Your task to perform on an android device: turn notification dots off Image 0: 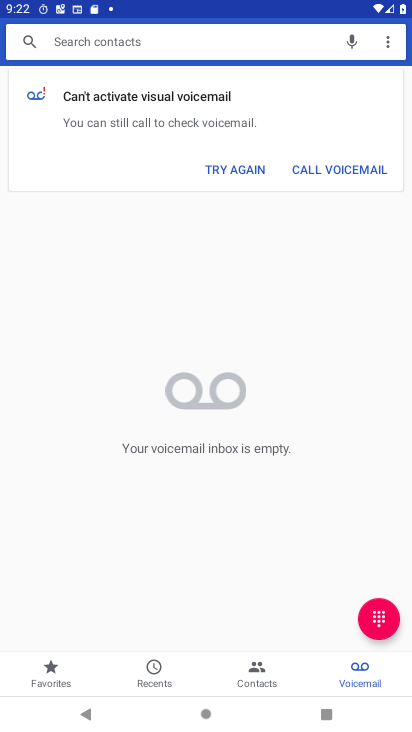
Step 0: press home button
Your task to perform on an android device: turn notification dots off Image 1: 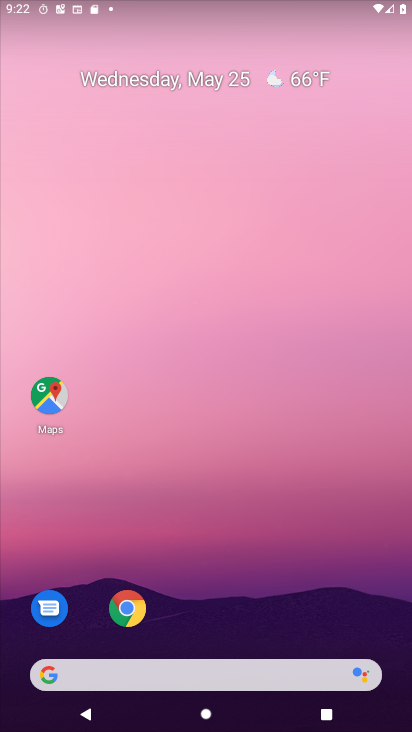
Step 1: drag from (235, 659) to (235, 245)
Your task to perform on an android device: turn notification dots off Image 2: 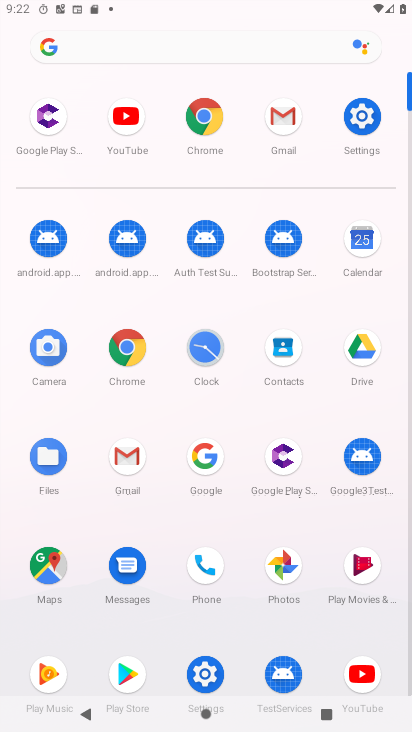
Step 2: click (367, 108)
Your task to perform on an android device: turn notification dots off Image 3: 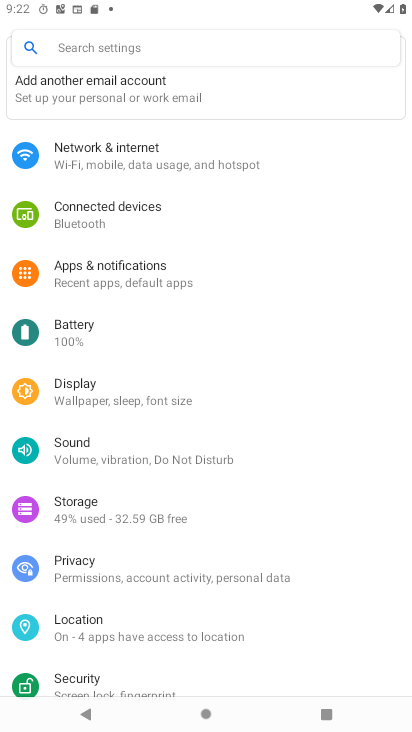
Step 3: click (126, 273)
Your task to perform on an android device: turn notification dots off Image 4: 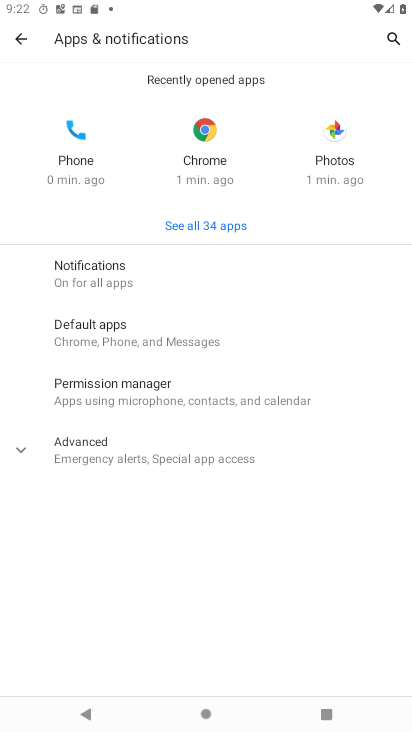
Step 4: click (113, 272)
Your task to perform on an android device: turn notification dots off Image 5: 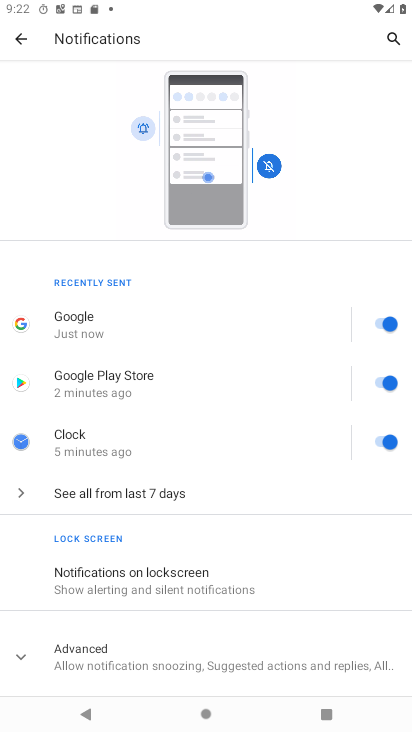
Step 5: drag from (251, 617) to (283, 256)
Your task to perform on an android device: turn notification dots off Image 6: 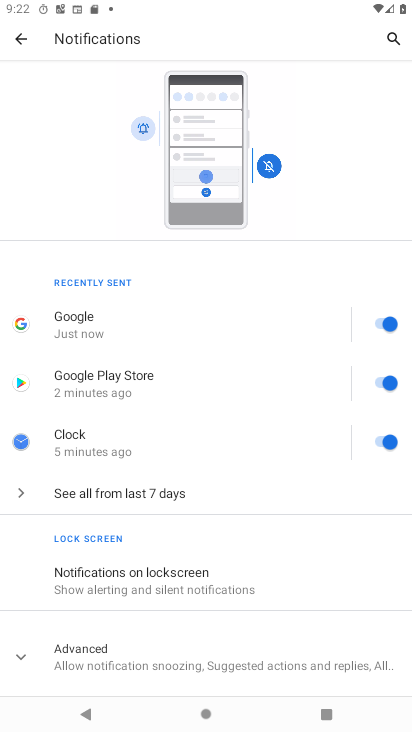
Step 6: click (201, 666)
Your task to perform on an android device: turn notification dots off Image 7: 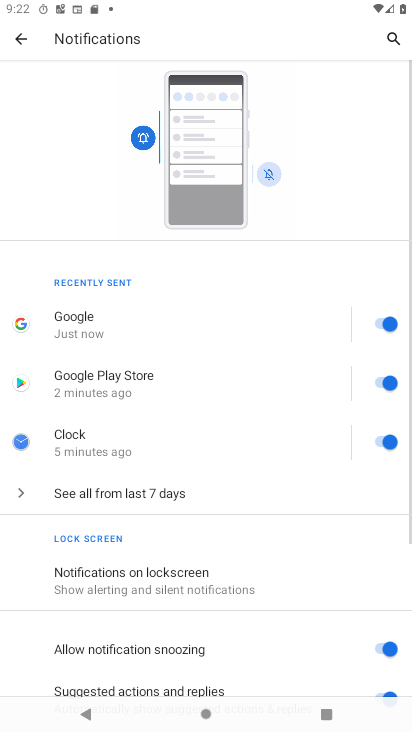
Step 7: task complete